Your task to perform on an android device: Search for Italian restaurants on Maps Image 0: 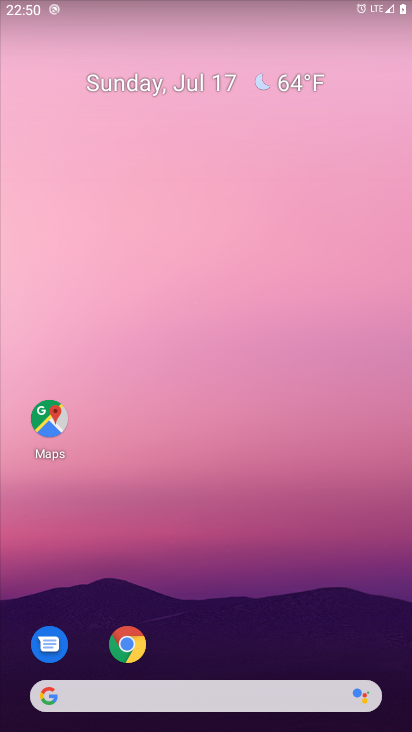
Step 0: press home button
Your task to perform on an android device: Search for Italian restaurants on Maps Image 1: 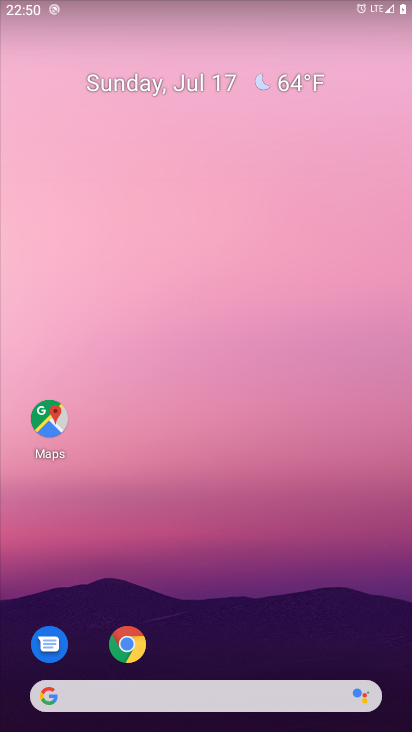
Step 1: click (51, 411)
Your task to perform on an android device: Search for Italian restaurants on Maps Image 2: 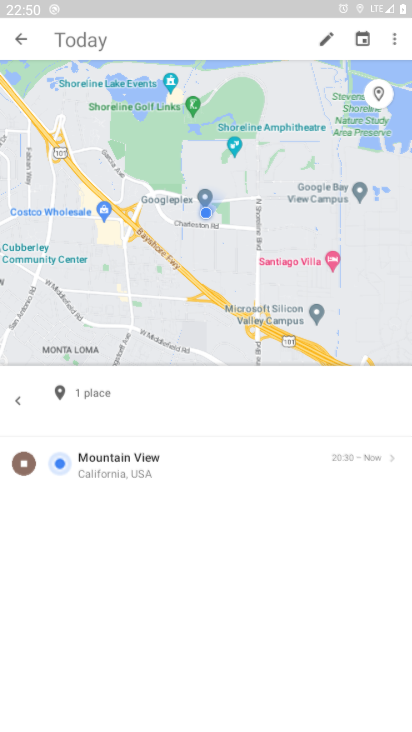
Step 2: click (94, 44)
Your task to perform on an android device: Search for Italian restaurants on Maps Image 3: 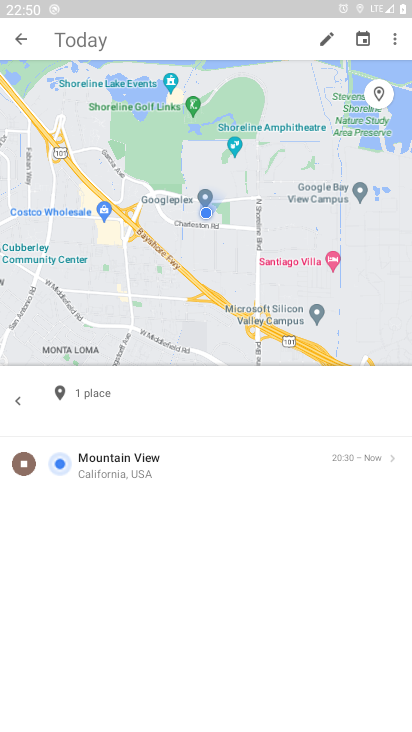
Step 3: click (30, 37)
Your task to perform on an android device: Search for Italian restaurants on Maps Image 4: 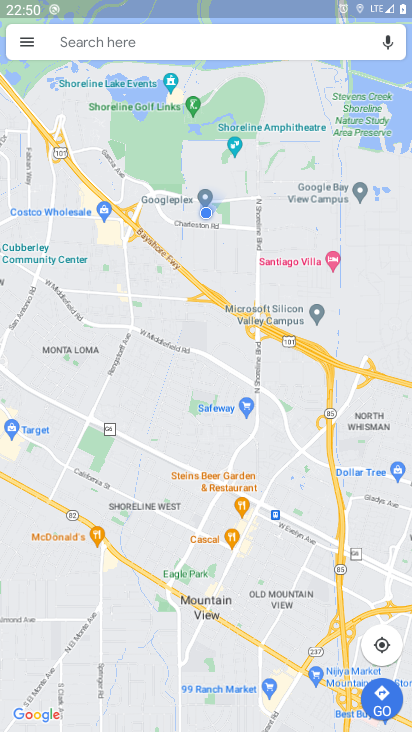
Step 4: click (167, 50)
Your task to perform on an android device: Search for Italian restaurants on Maps Image 5: 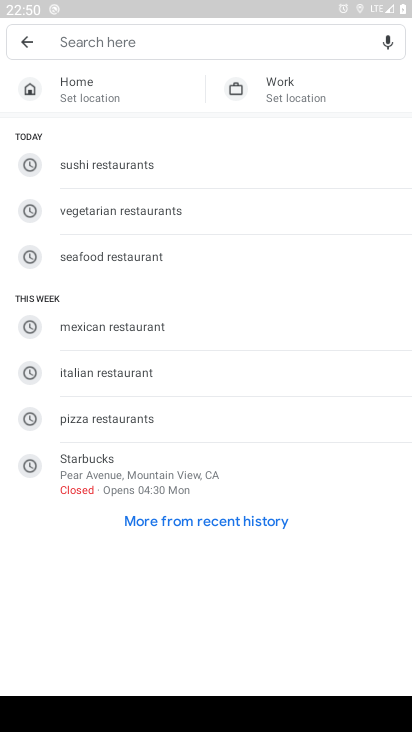
Step 5: click (123, 371)
Your task to perform on an android device: Search for Italian restaurants on Maps Image 6: 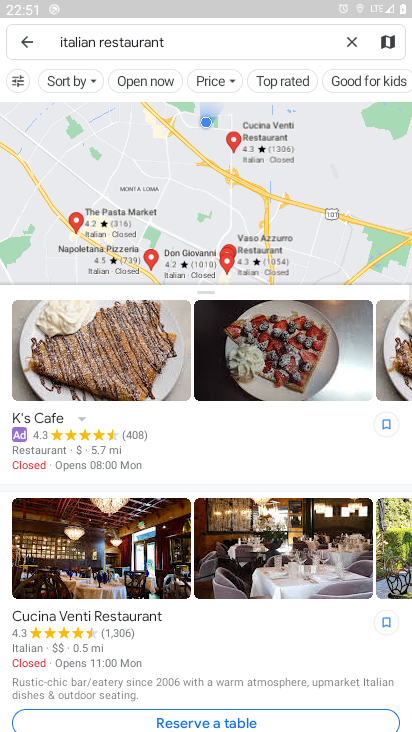
Step 6: task complete